Your task to perform on an android device: turn off location history Image 0: 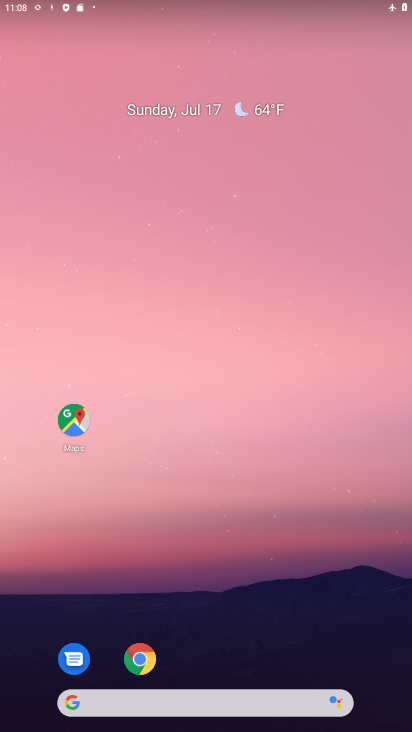
Step 0: drag from (368, 633) to (378, 84)
Your task to perform on an android device: turn off location history Image 1: 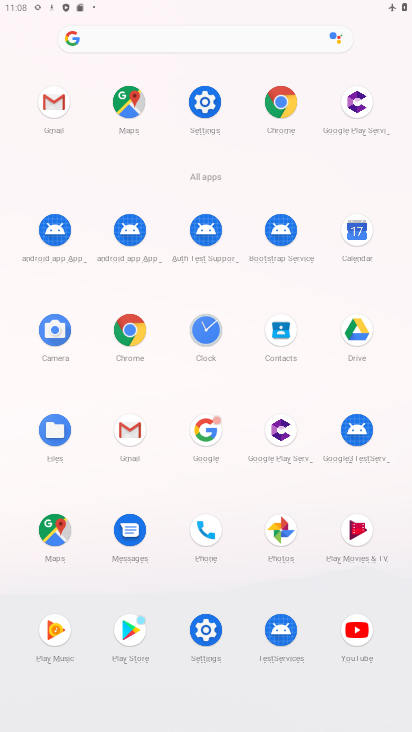
Step 1: click (209, 103)
Your task to perform on an android device: turn off location history Image 2: 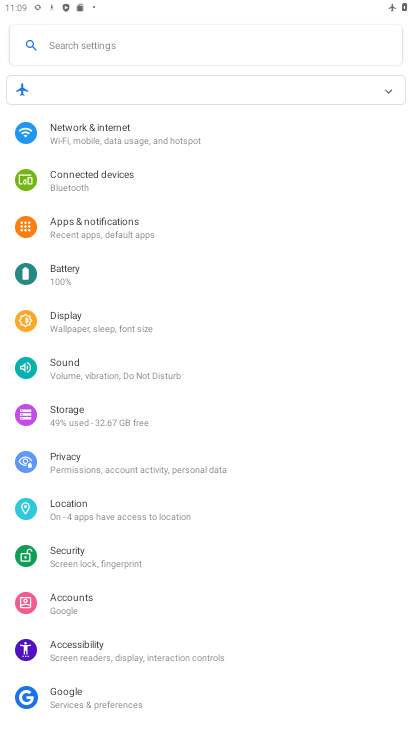
Step 2: drag from (321, 482) to (330, 408)
Your task to perform on an android device: turn off location history Image 3: 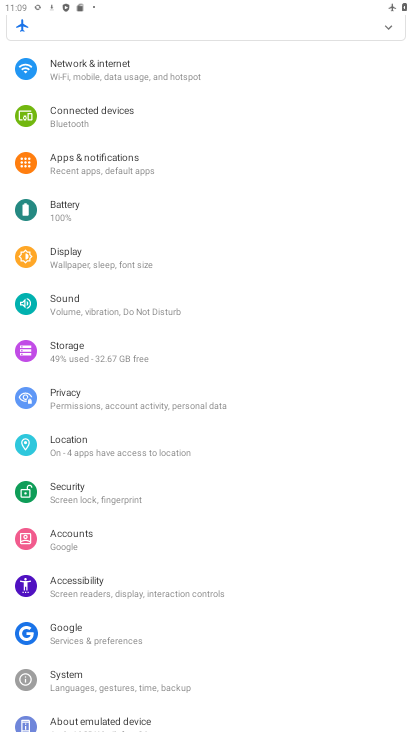
Step 3: drag from (319, 531) to (318, 449)
Your task to perform on an android device: turn off location history Image 4: 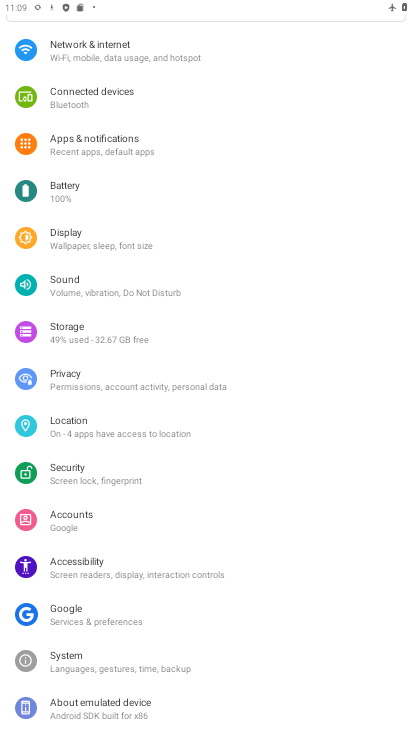
Step 4: drag from (313, 285) to (320, 370)
Your task to perform on an android device: turn off location history Image 5: 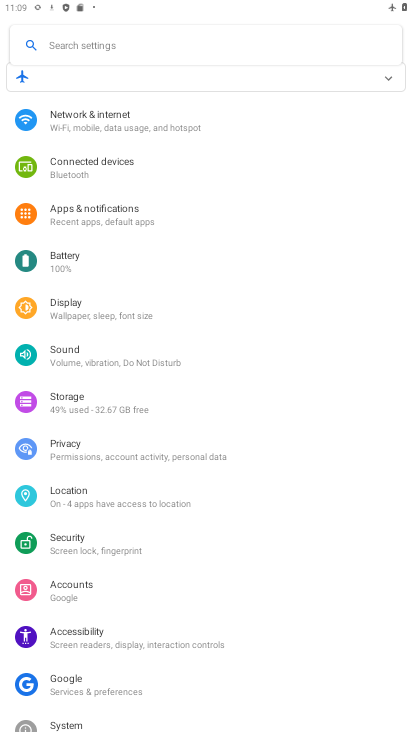
Step 5: drag from (322, 290) to (329, 406)
Your task to perform on an android device: turn off location history Image 6: 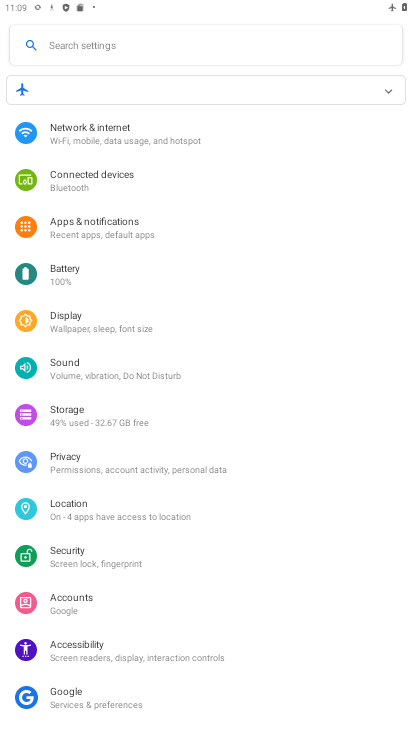
Step 6: click (253, 504)
Your task to perform on an android device: turn off location history Image 7: 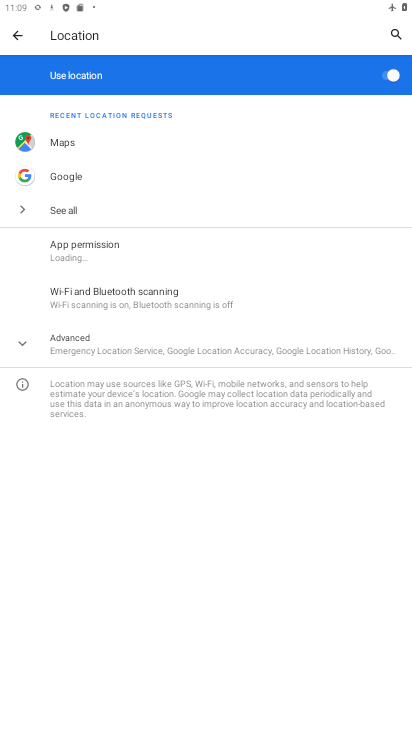
Step 7: click (224, 356)
Your task to perform on an android device: turn off location history Image 8: 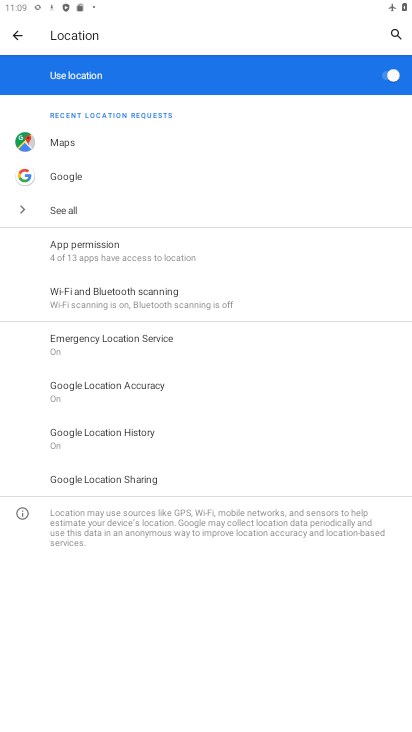
Step 8: click (159, 440)
Your task to perform on an android device: turn off location history Image 9: 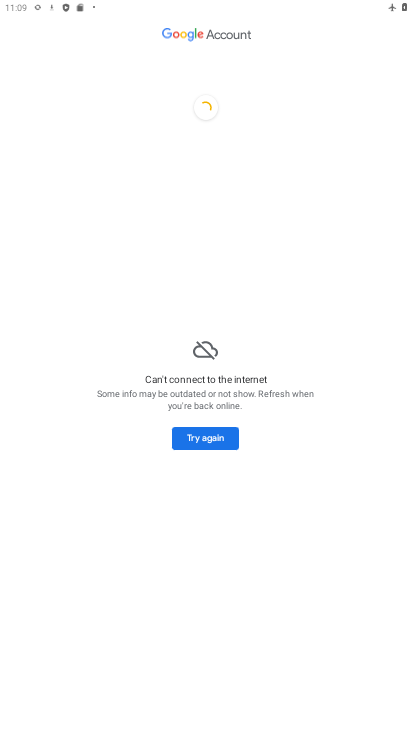
Step 9: task complete